Your task to perform on an android device: change the clock display to digital Image 0: 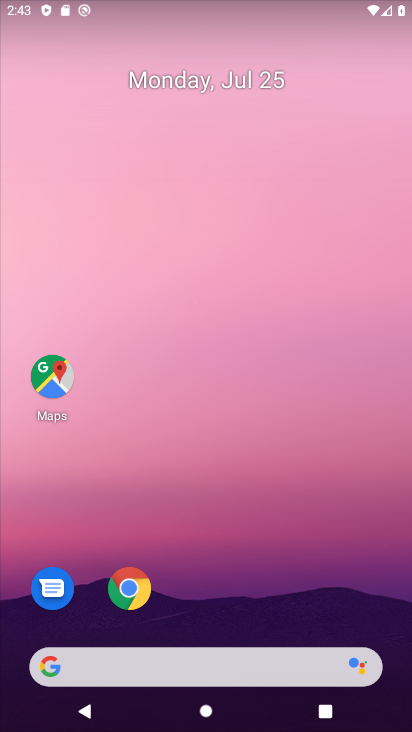
Step 0: drag from (235, 311) to (238, 200)
Your task to perform on an android device: change the clock display to digital Image 1: 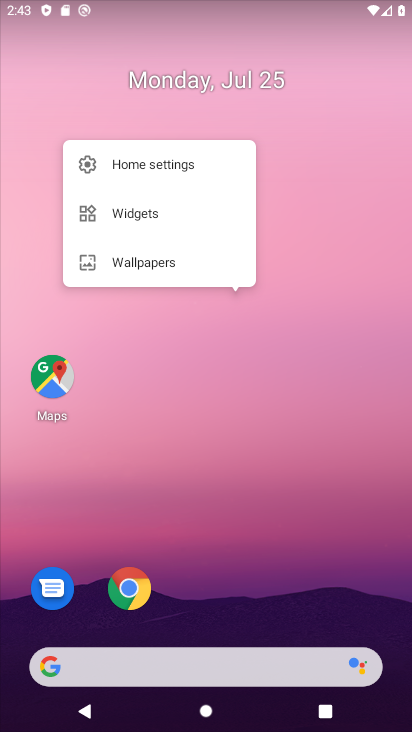
Step 1: drag from (220, 624) to (243, 257)
Your task to perform on an android device: change the clock display to digital Image 2: 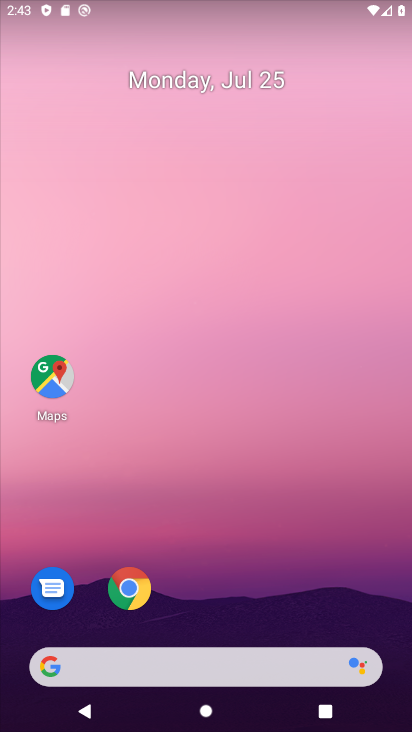
Step 2: drag from (222, 592) to (245, 191)
Your task to perform on an android device: change the clock display to digital Image 3: 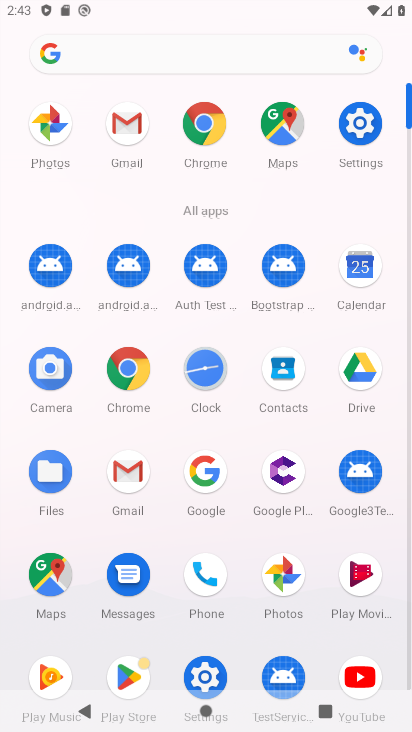
Step 3: click (210, 359)
Your task to perform on an android device: change the clock display to digital Image 4: 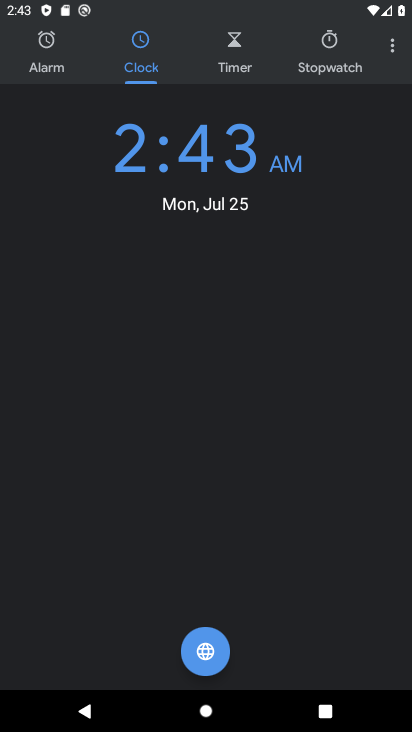
Step 4: click (393, 42)
Your task to perform on an android device: change the clock display to digital Image 5: 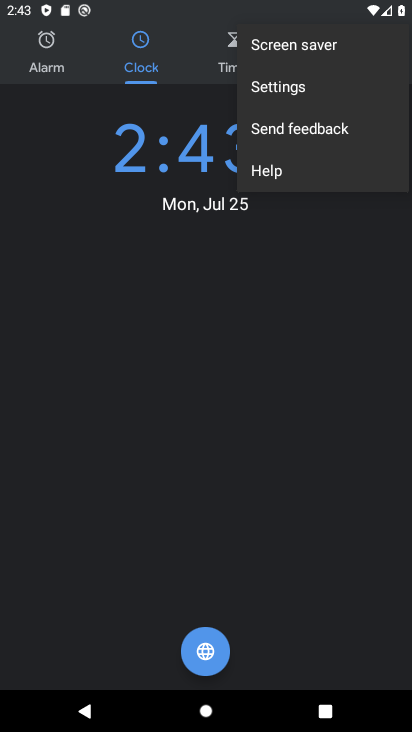
Step 5: click (282, 84)
Your task to perform on an android device: change the clock display to digital Image 6: 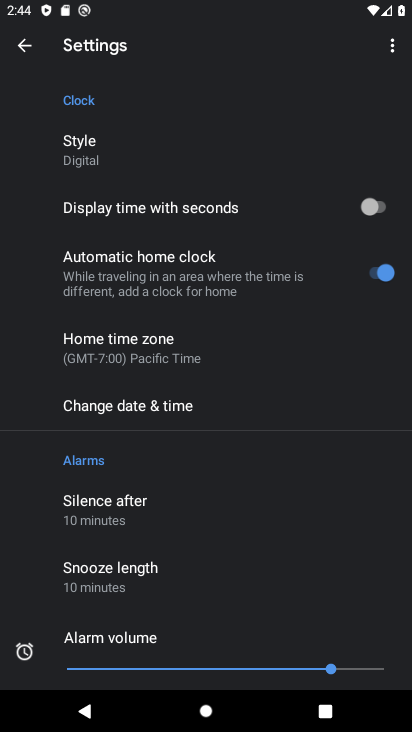
Step 6: click (105, 157)
Your task to perform on an android device: change the clock display to digital Image 7: 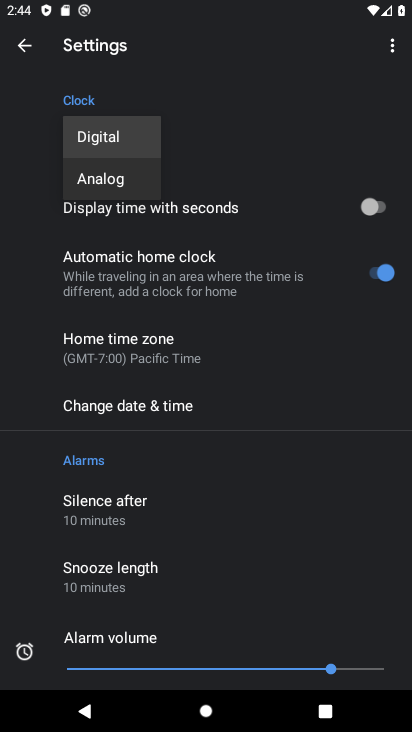
Step 7: click (103, 128)
Your task to perform on an android device: change the clock display to digital Image 8: 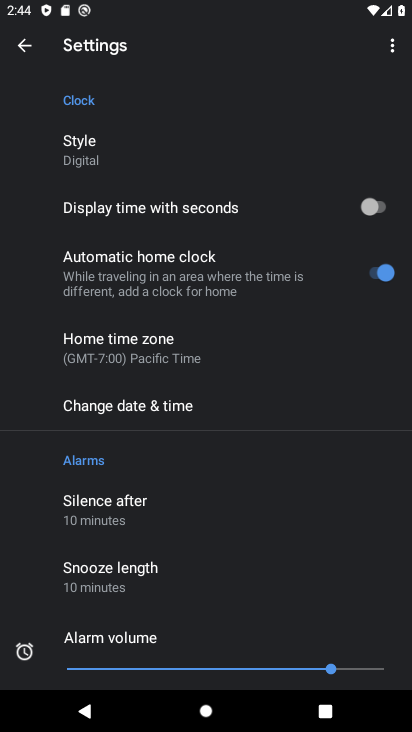
Step 8: task complete